Your task to perform on an android device: find snoozed emails in the gmail app Image 0: 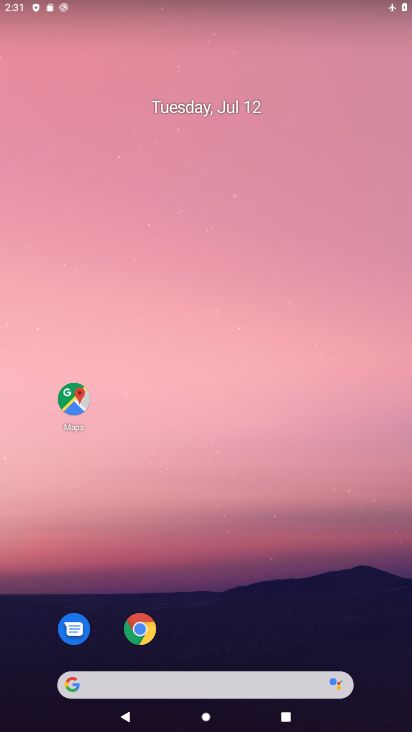
Step 0: drag from (184, 585) to (220, 25)
Your task to perform on an android device: find snoozed emails in the gmail app Image 1: 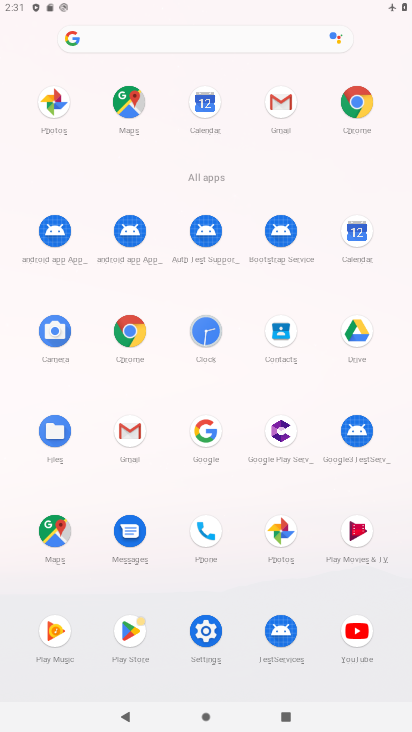
Step 1: click (130, 444)
Your task to perform on an android device: find snoozed emails in the gmail app Image 2: 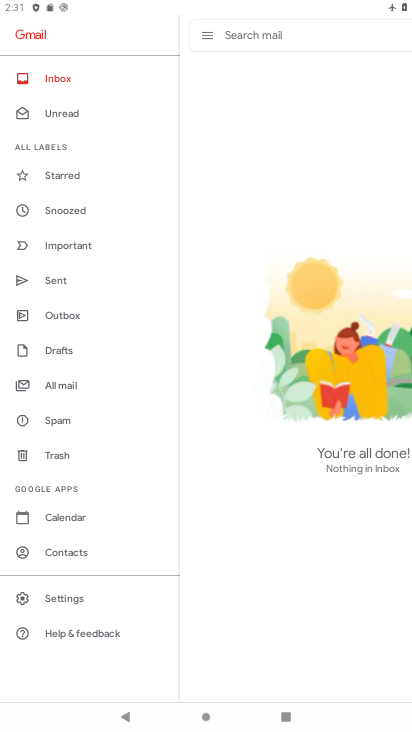
Step 2: click (75, 210)
Your task to perform on an android device: find snoozed emails in the gmail app Image 3: 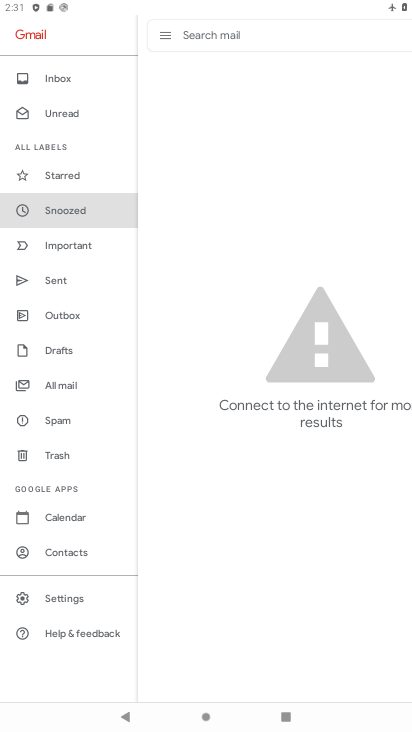
Step 3: task complete